Your task to perform on an android device: What is the recent news? Image 0: 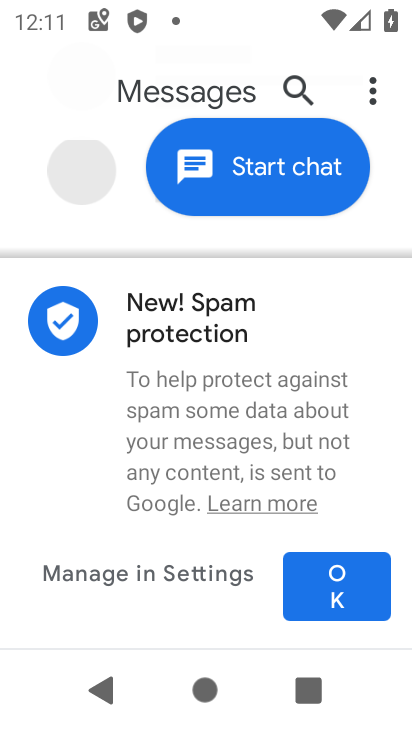
Step 0: press home button
Your task to perform on an android device: What is the recent news? Image 1: 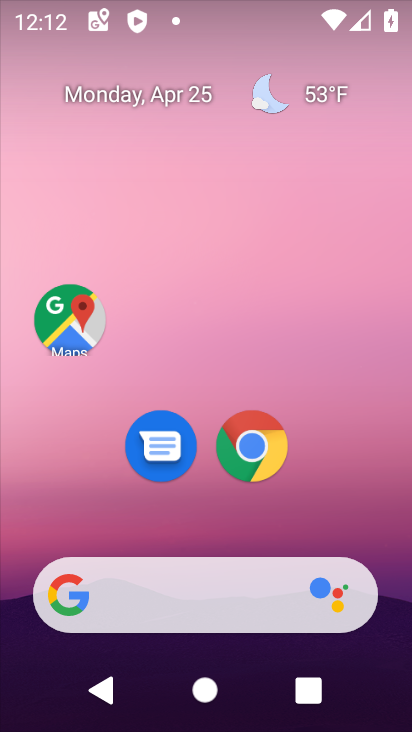
Step 1: click (180, 582)
Your task to perform on an android device: What is the recent news? Image 2: 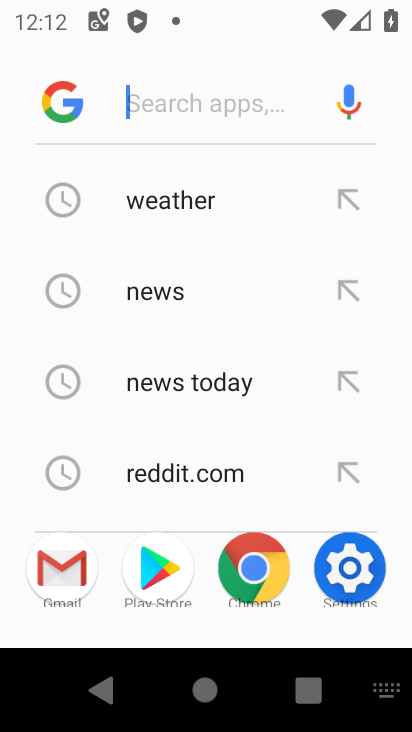
Step 2: type "recent news"
Your task to perform on an android device: What is the recent news? Image 3: 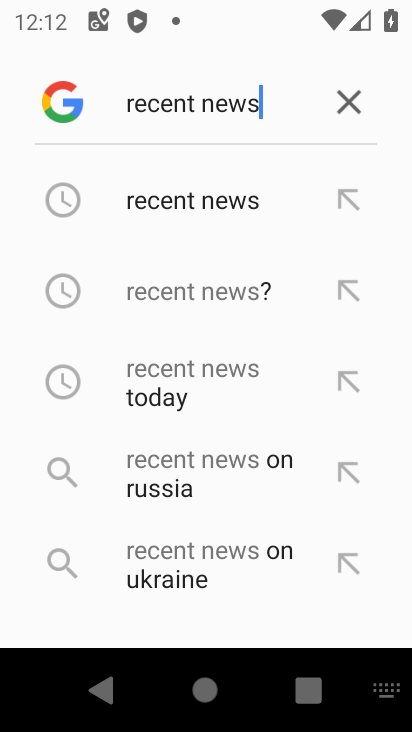
Step 3: click (225, 296)
Your task to perform on an android device: What is the recent news? Image 4: 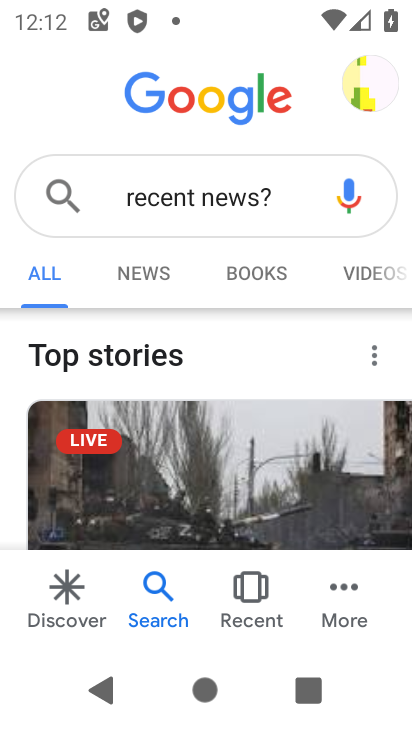
Step 4: task complete